Your task to perform on an android device: Open Chrome and go to the settings page Image 0: 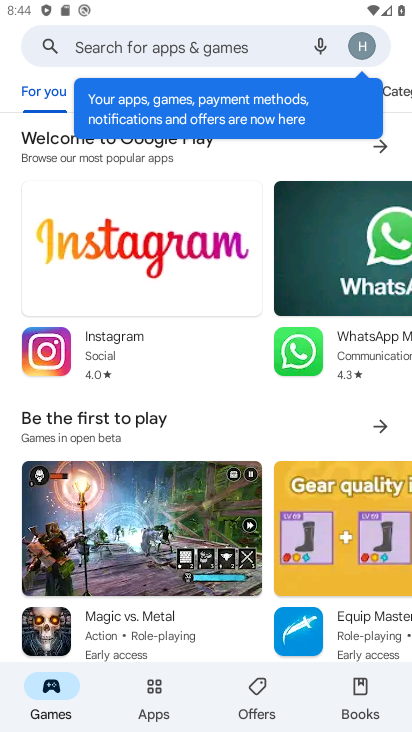
Step 0: press home button
Your task to perform on an android device: Open Chrome and go to the settings page Image 1: 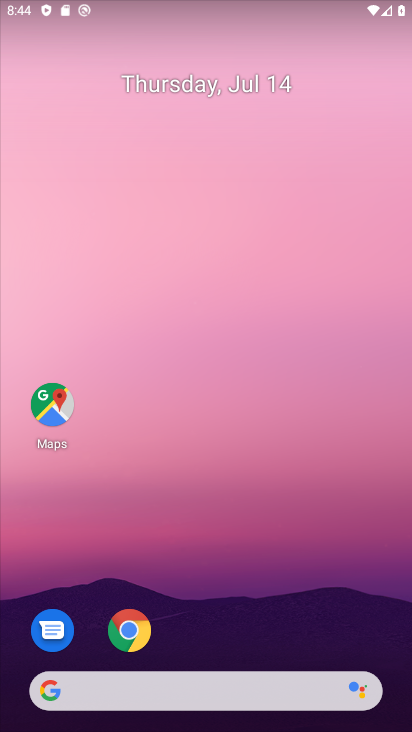
Step 1: click (126, 641)
Your task to perform on an android device: Open Chrome and go to the settings page Image 2: 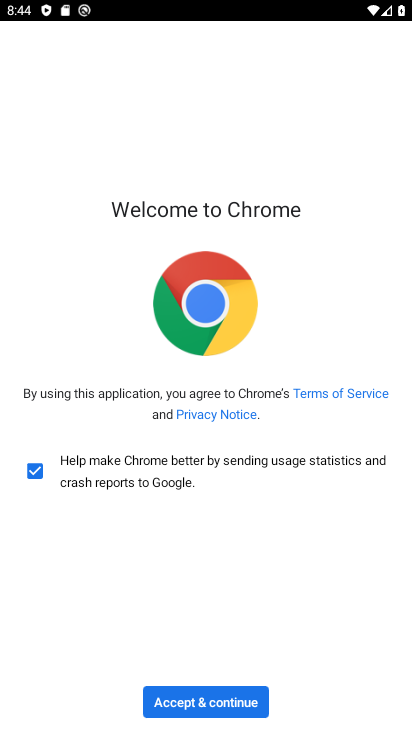
Step 2: click (226, 702)
Your task to perform on an android device: Open Chrome and go to the settings page Image 3: 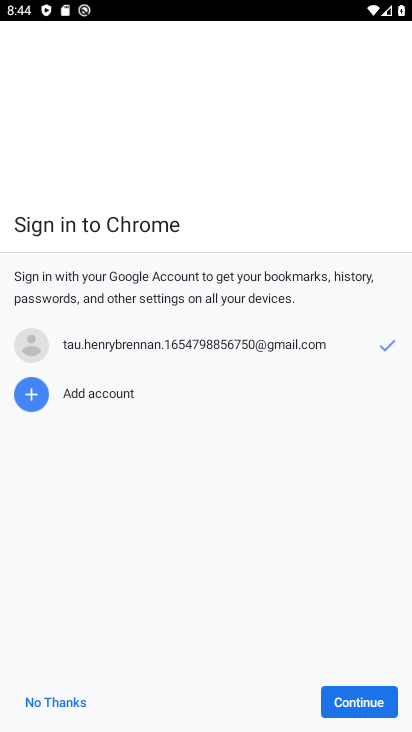
Step 3: click (343, 694)
Your task to perform on an android device: Open Chrome and go to the settings page Image 4: 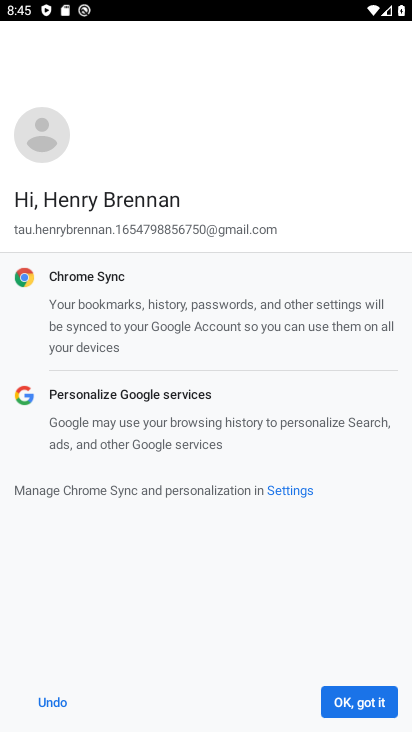
Step 4: click (370, 702)
Your task to perform on an android device: Open Chrome and go to the settings page Image 5: 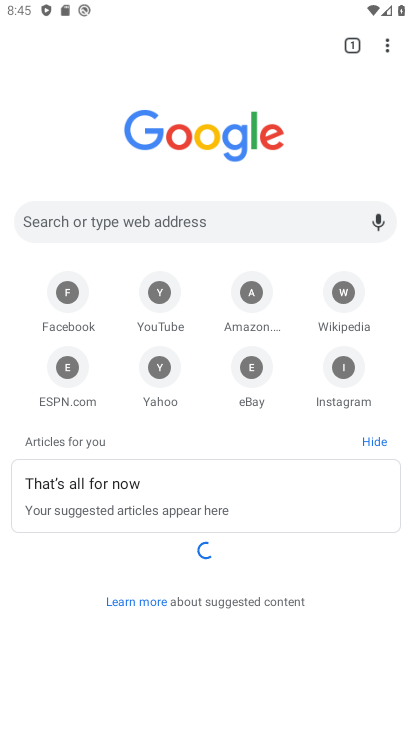
Step 5: click (384, 47)
Your task to perform on an android device: Open Chrome and go to the settings page Image 6: 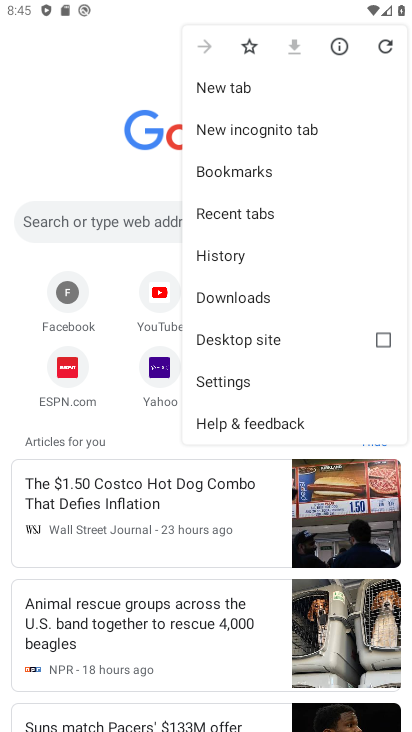
Step 6: click (202, 384)
Your task to perform on an android device: Open Chrome and go to the settings page Image 7: 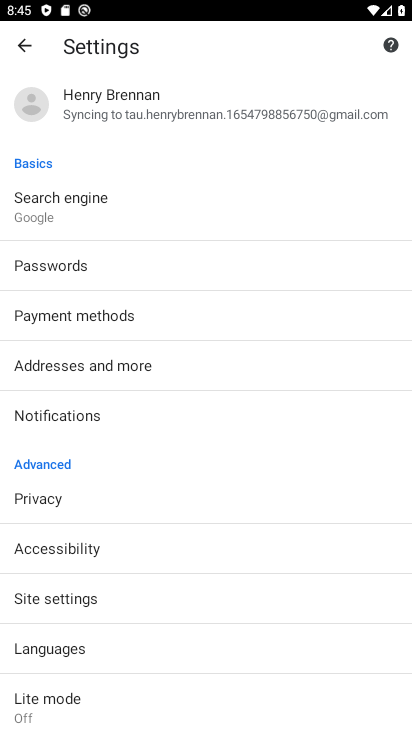
Step 7: task complete